Your task to perform on an android device: check storage Image 0: 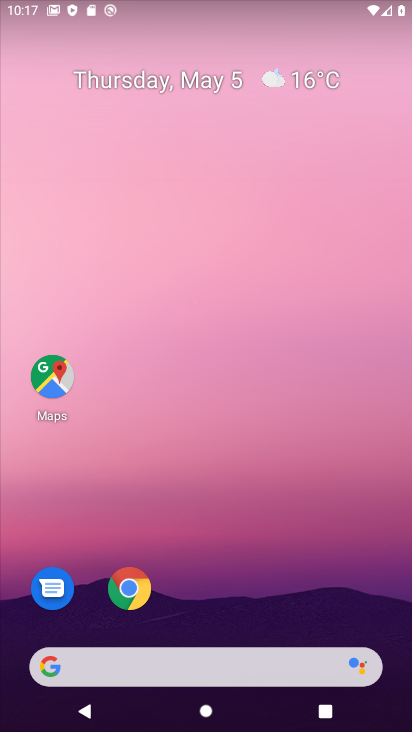
Step 0: drag from (239, 547) to (255, 169)
Your task to perform on an android device: check storage Image 1: 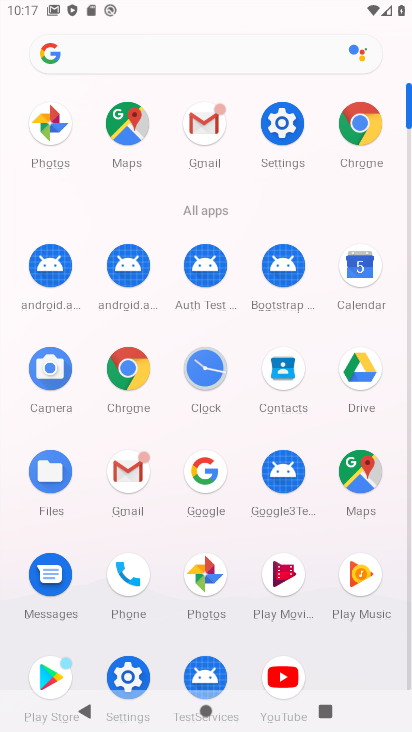
Step 1: click (135, 661)
Your task to perform on an android device: check storage Image 2: 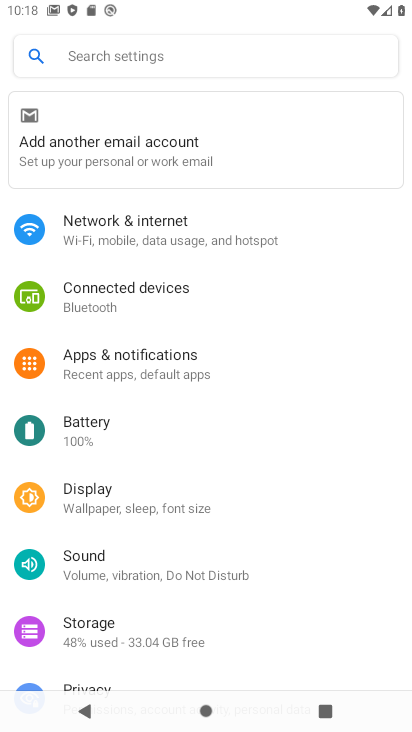
Step 2: click (179, 365)
Your task to perform on an android device: check storage Image 3: 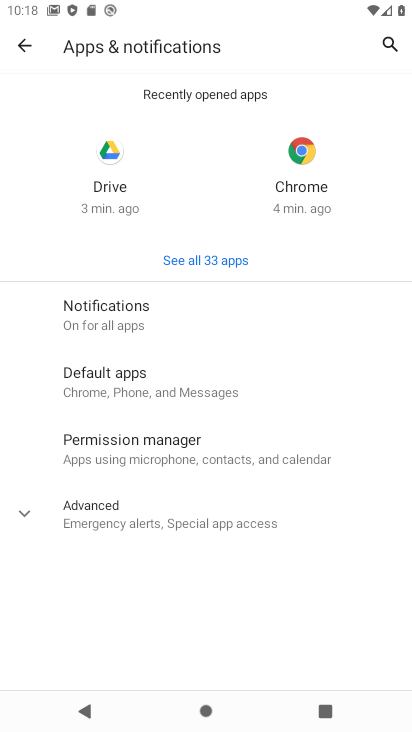
Step 3: click (25, 42)
Your task to perform on an android device: check storage Image 4: 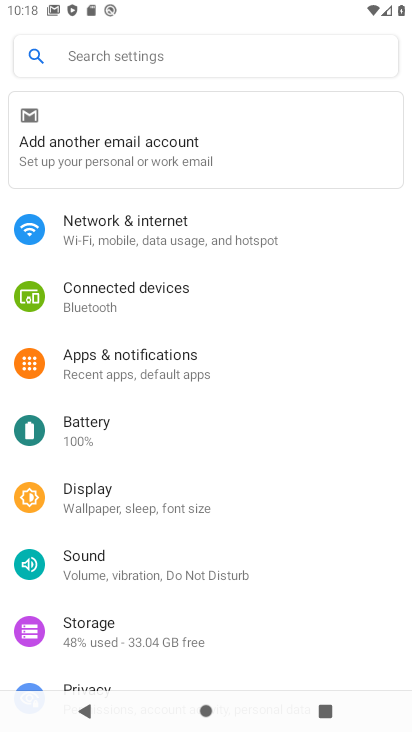
Step 4: click (124, 637)
Your task to perform on an android device: check storage Image 5: 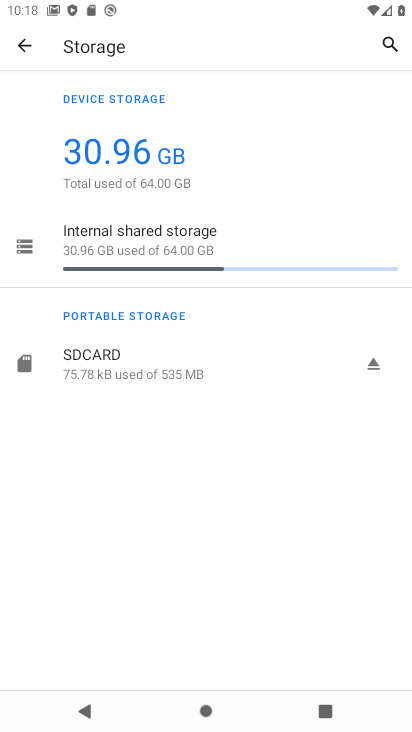
Step 5: task complete